Your task to perform on an android device: Open Google Chrome and open the bookmarks view Image 0: 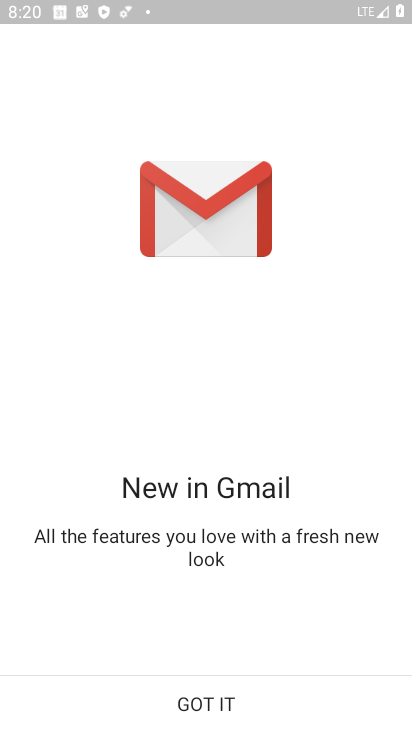
Step 0: press home button
Your task to perform on an android device: Open Google Chrome and open the bookmarks view Image 1: 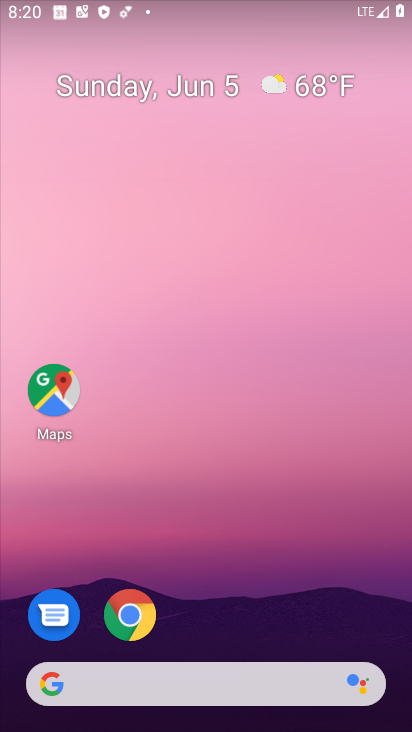
Step 1: click (148, 619)
Your task to perform on an android device: Open Google Chrome and open the bookmarks view Image 2: 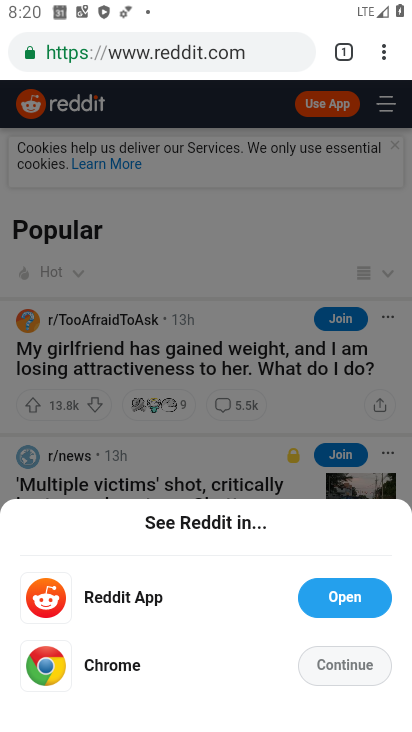
Step 2: drag from (378, 54) to (213, 192)
Your task to perform on an android device: Open Google Chrome and open the bookmarks view Image 3: 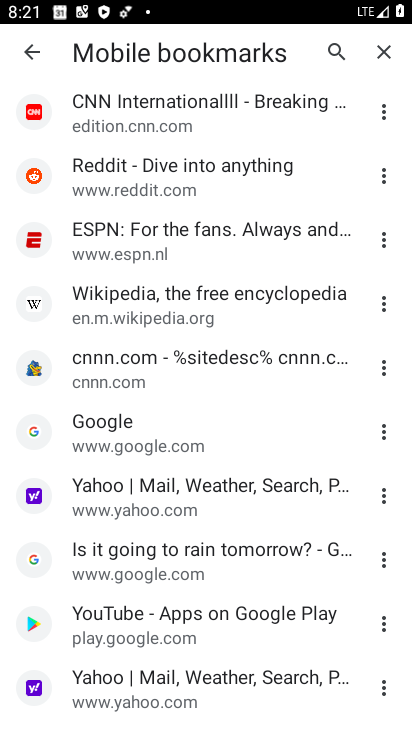
Step 3: click (155, 580)
Your task to perform on an android device: Open Google Chrome and open the bookmarks view Image 4: 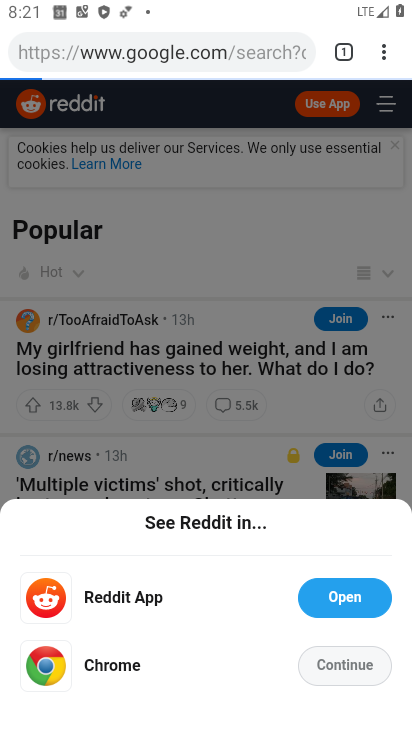
Step 4: click (128, 496)
Your task to perform on an android device: Open Google Chrome and open the bookmarks view Image 5: 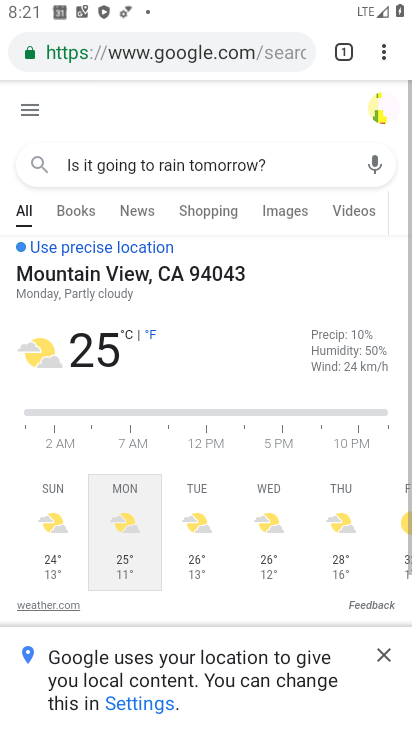
Step 5: task complete